Your task to perform on an android device: Clear the cart on bestbuy. Add "amazon basics triple a" to the cart on bestbuy, then select checkout. Image 0: 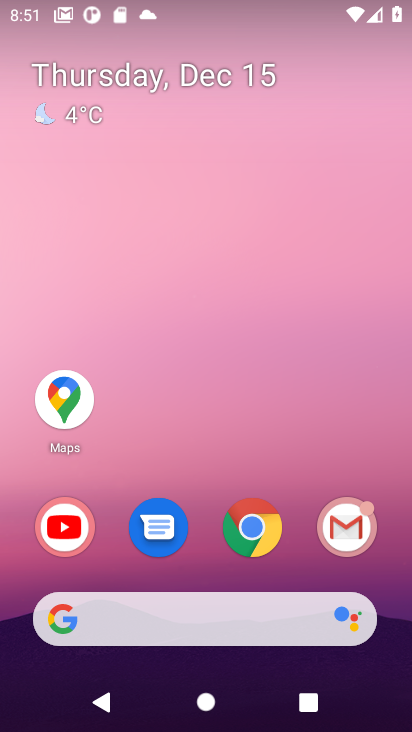
Step 0: click (225, 610)
Your task to perform on an android device: Clear the cart on bestbuy. Add "amazon basics triple a" to the cart on bestbuy, then select checkout. Image 1: 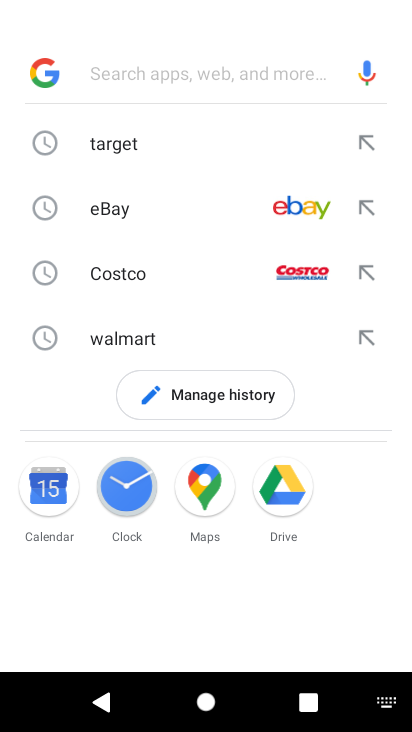
Step 1: type "bestbuy"
Your task to perform on an android device: Clear the cart on bestbuy. Add "amazon basics triple a" to the cart on bestbuy, then select checkout. Image 2: 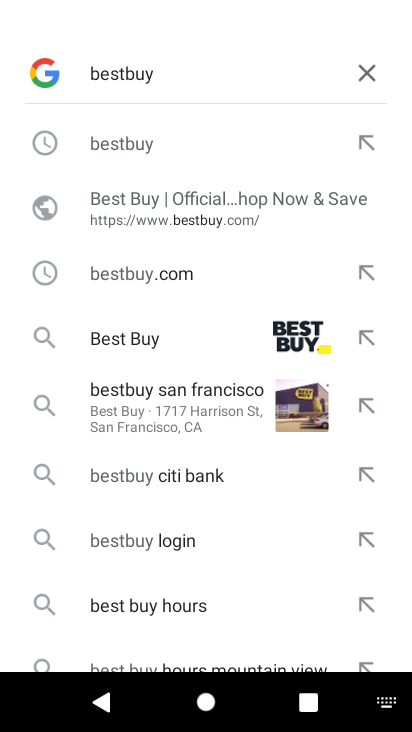
Step 2: click (151, 138)
Your task to perform on an android device: Clear the cart on bestbuy. Add "amazon basics triple a" to the cart on bestbuy, then select checkout. Image 3: 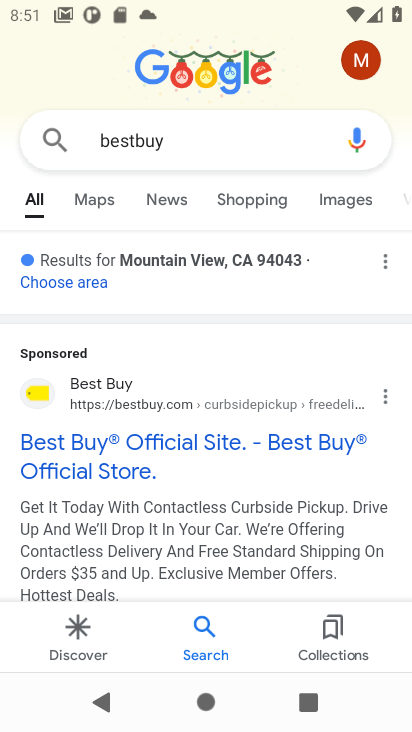
Step 3: click (104, 458)
Your task to perform on an android device: Clear the cart on bestbuy. Add "amazon basics triple a" to the cart on bestbuy, then select checkout. Image 4: 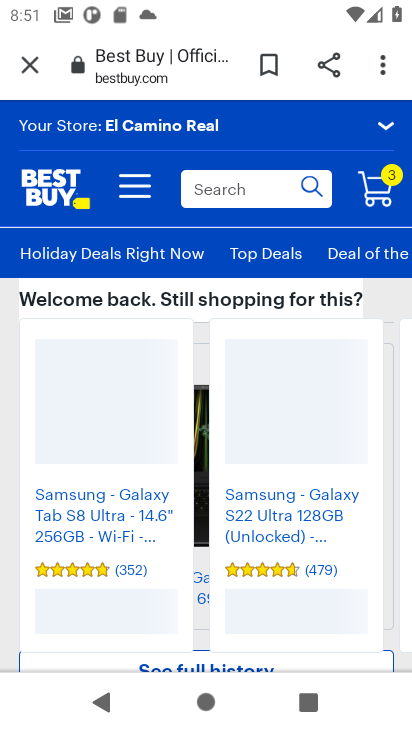
Step 4: click (201, 199)
Your task to perform on an android device: Clear the cart on bestbuy. Add "amazon basics triple a" to the cart on bestbuy, then select checkout. Image 5: 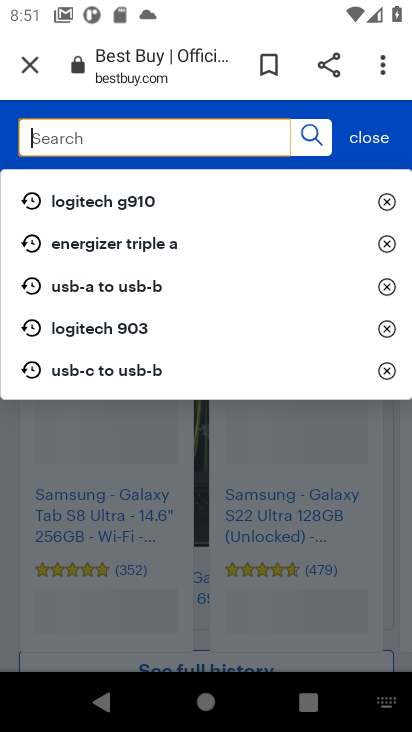
Step 5: type "amazon basic"
Your task to perform on an android device: Clear the cart on bestbuy. Add "amazon basics triple a" to the cart on bestbuy, then select checkout. Image 6: 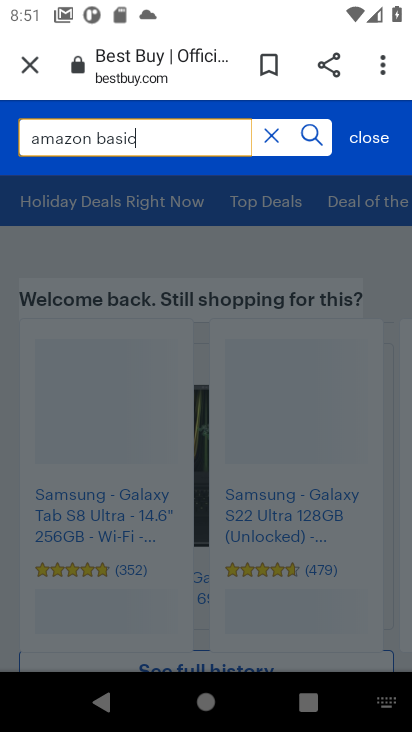
Step 6: type " triple a"
Your task to perform on an android device: Clear the cart on bestbuy. Add "amazon basics triple a" to the cart on bestbuy, then select checkout. Image 7: 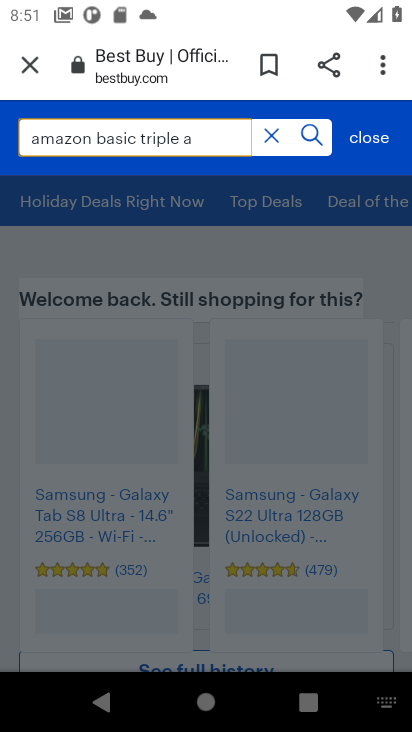
Step 7: click (298, 134)
Your task to perform on an android device: Clear the cart on bestbuy. Add "amazon basics triple a" to the cart on bestbuy, then select checkout. Image 8: 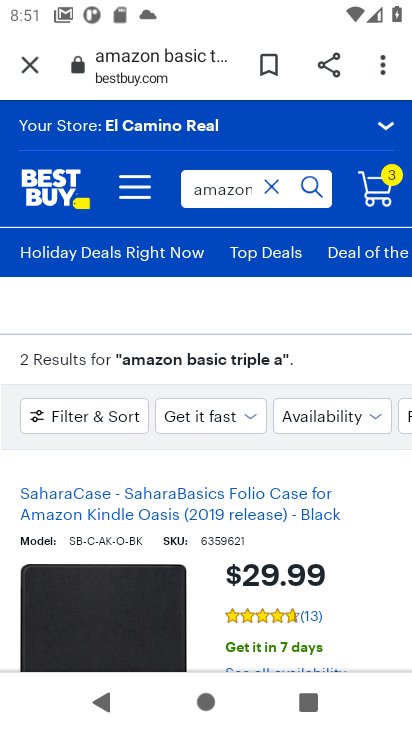
Step 8: drag from (204, 627) to (202, 421)
Your task to perform on an android device: Clear the cart on bestbuy. Add "amazon basics triple a" to the cart on bestbuy, then select checkout. Image 9: 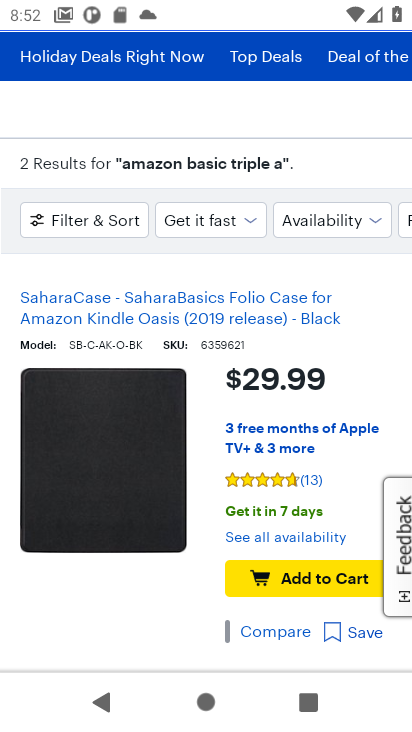
Step 9: click (310, 577)
Your task to perform on an android device: Clear the cart on bestbuy. Add "amazon basics triple a" to the cart on bestbuy, then select checkout. Image 10: 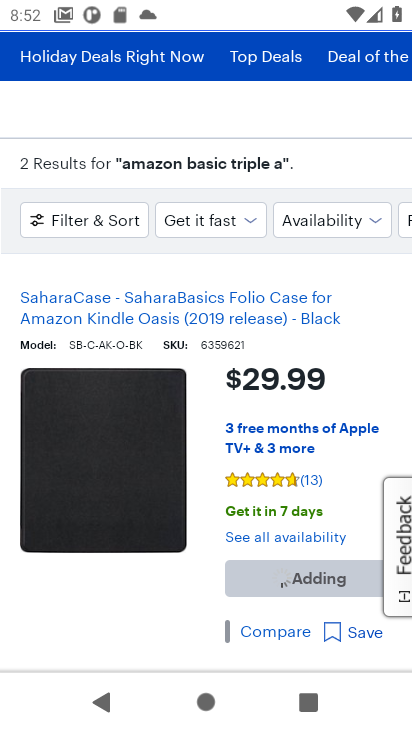
Step 10: task complete